Your task to perform on an android device: Open the calendar and show me this week's events? Image 0: 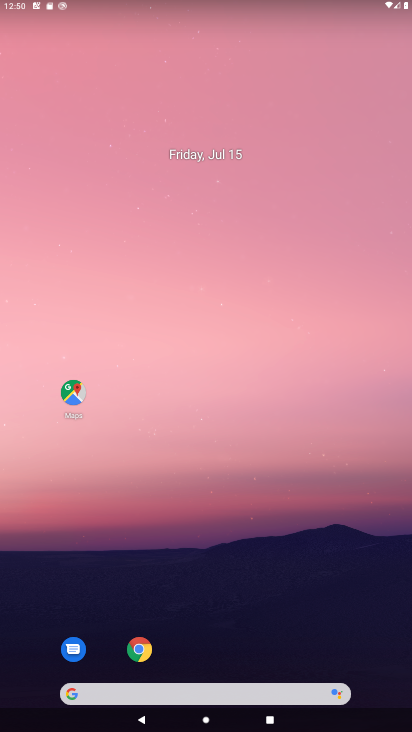
Step 0: drag from (274, 645) to (308, 279)
Your task to perform on an android device: Open the calendar and show me this week's events? Image 1: 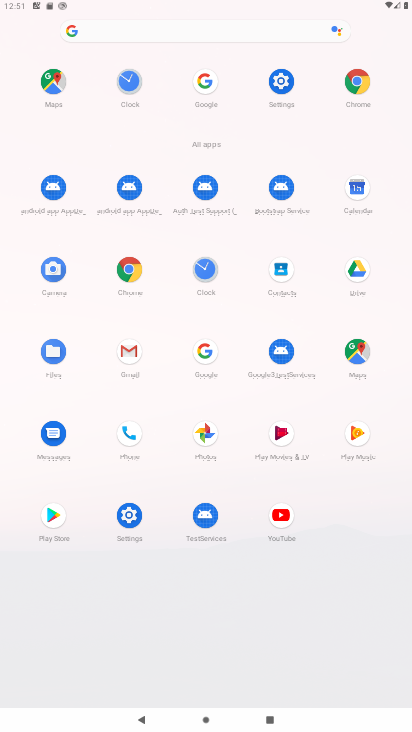
Step 1: click (352, 187)
Your task to perform on an android device: Open the calendar and show me this week's events? Image 2: 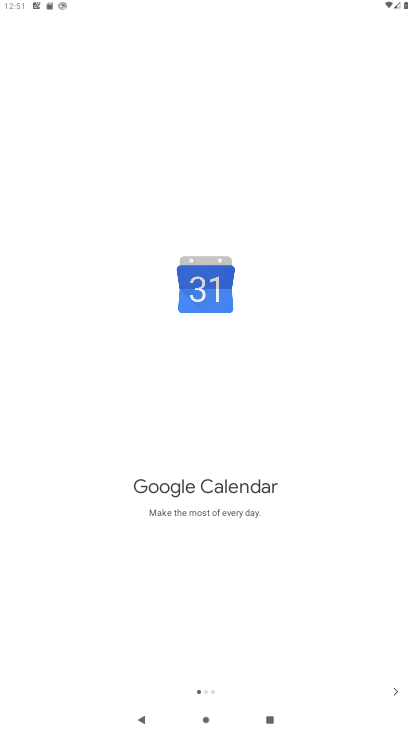
Step 2: click (397, 689)
Your task to perform on an android device: Open the calendar and show me this week's events? Image 3: 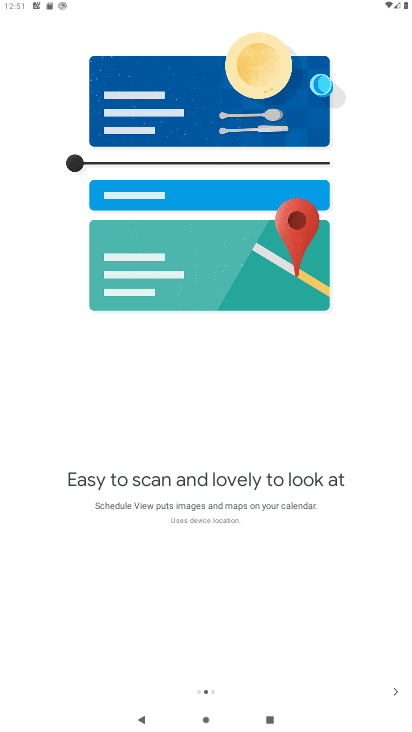
Step 3: click (389, 693)
Your task to perform on an android device: Open the calendar and show me this week's events? Image 4: 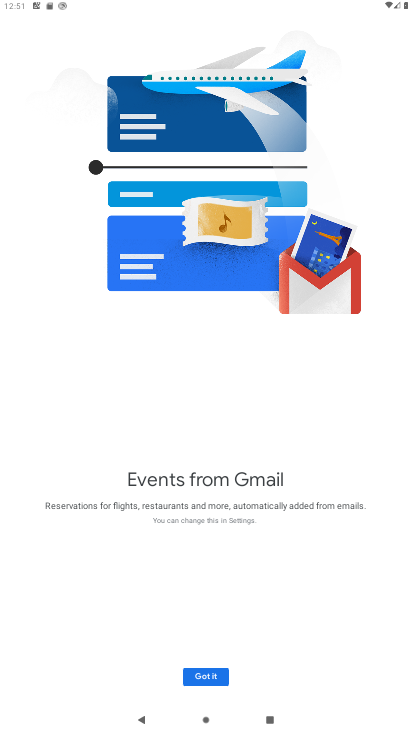
Step 4: click (187, 672)
Your task to perform on an android device: Open the calendar and show me this week's events? Image 5: 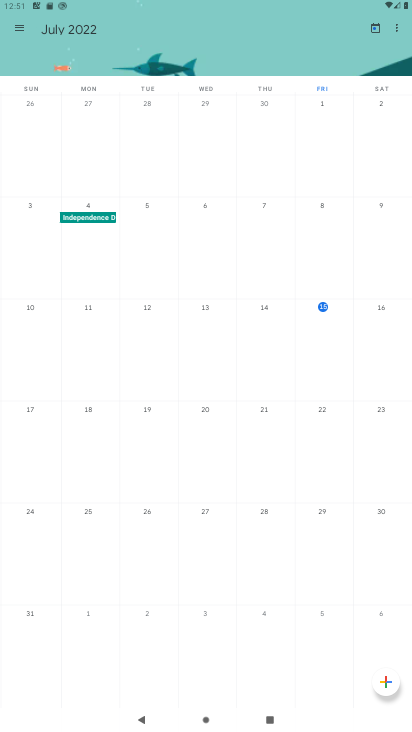
Step 5: click (26, 23)
Your task to perform on an android device: Open the calendar and show me this week's events? Image 6: 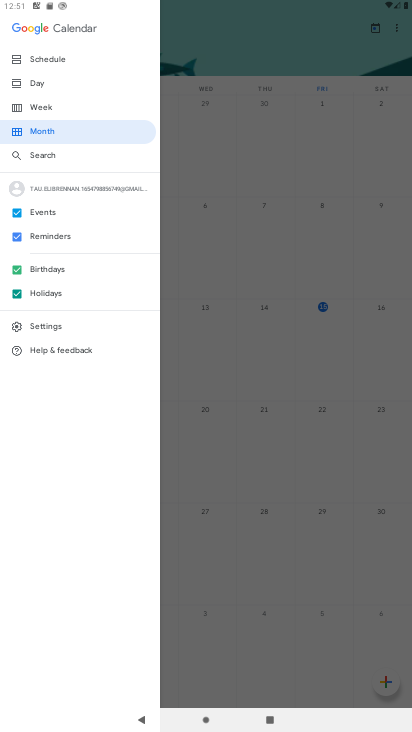
Step 6: click (65, 104)
Your task to perform on an android device: Open the calendar and show me this week's events? Image 7: 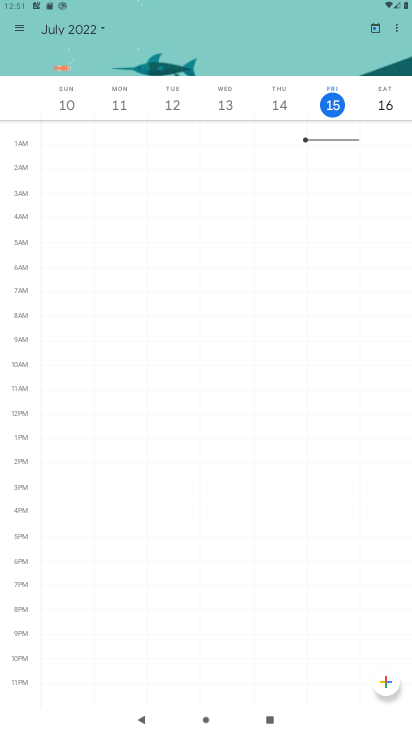
Step 7: task complete